Your task to perform on an android device: allow cookies in the chrome app Image 0: 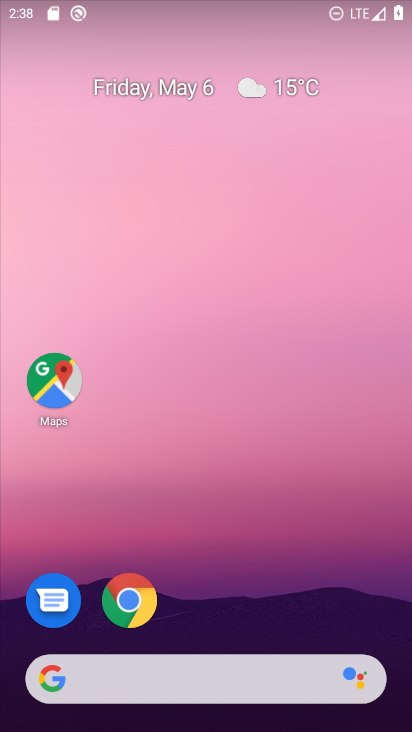
Step 0: drag from (266, 628) to (136, 102)
Your task to perform on an android device: allow cookies in the chrome app Image 1: 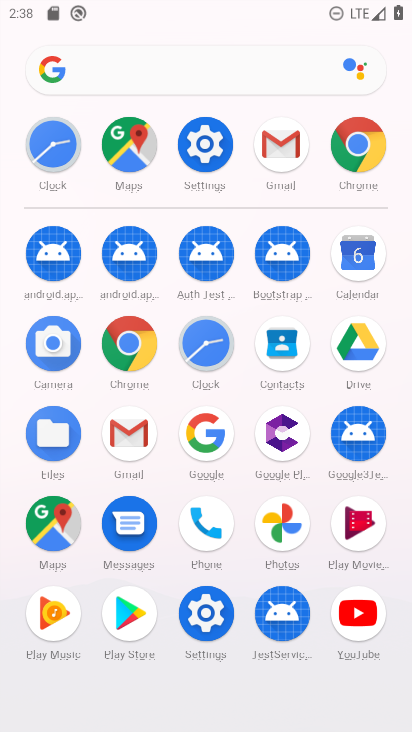
Step 1: click (134, 338)
Your task to perform on an android device: allow cookies in the chrome app Image 2: 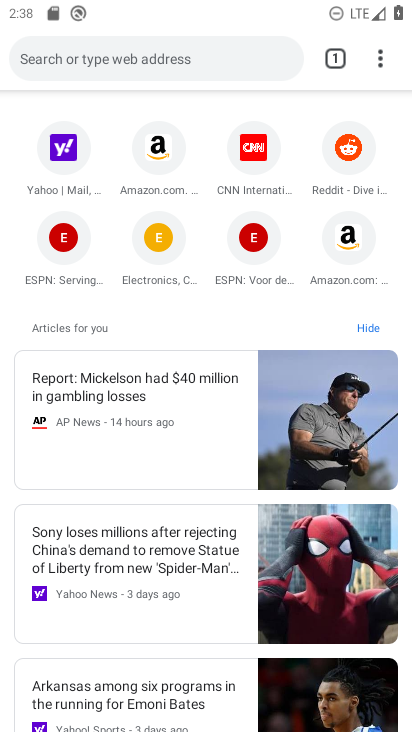
Step 2: click (383, 57)
Your task to perform on an android device: allow cookies in the chrome app Image 3: 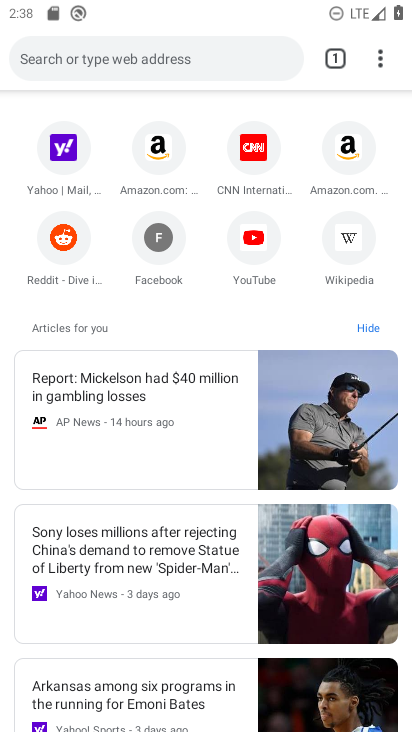
Step 3: click (383, 57)
Your task to perform on an android device: allow cookies in the chrome app Image 4: 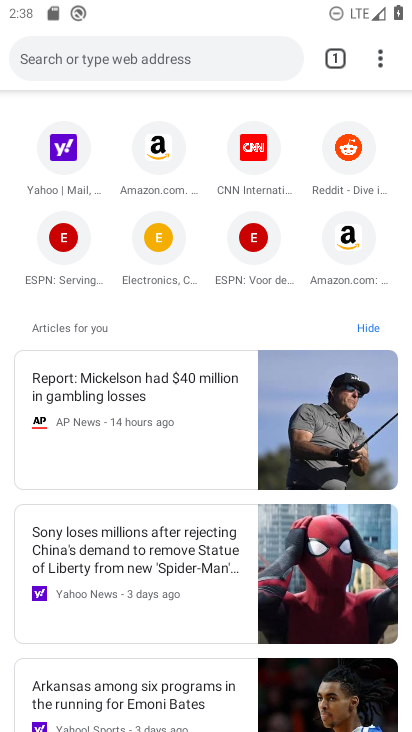
Step 4: click (380, 46)
Your task to perform on an android device: allow cookies in the chrome app Image 5: 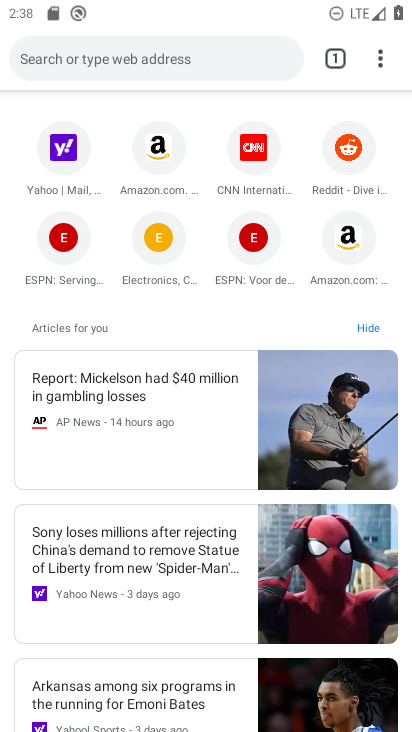
Step 5: click (378, 56)
Your task to perform on an android device: allow cookies in the chrome app Image 6: 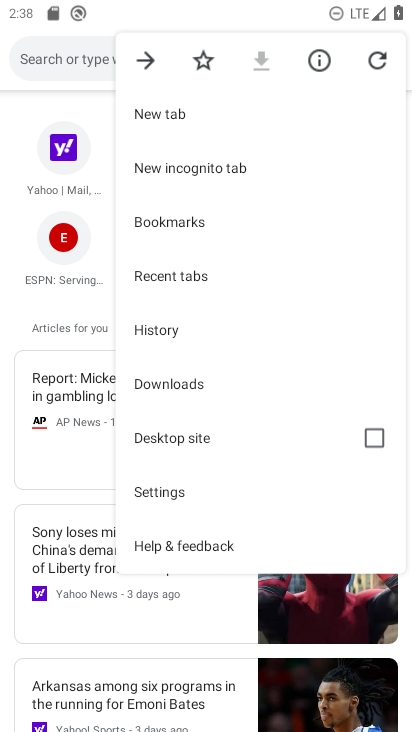
Step 6: click (184, 491)
Your task to perform on an android device: allow cookies in the chrome app Image 7: 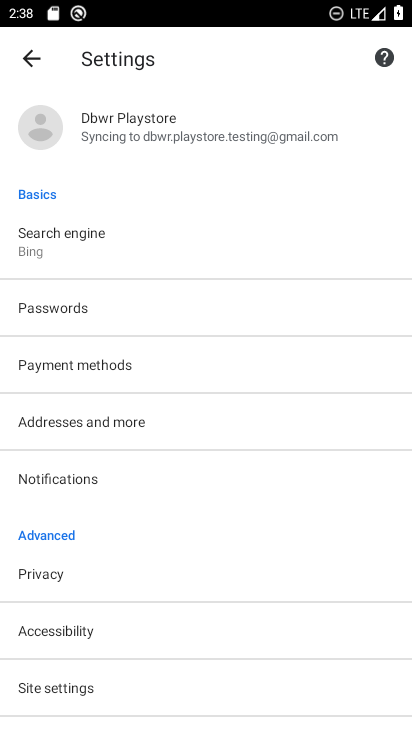
Step 7: click (79, 680)
Your task to perform on an android device: allow cookies in the chrome app Image 8: 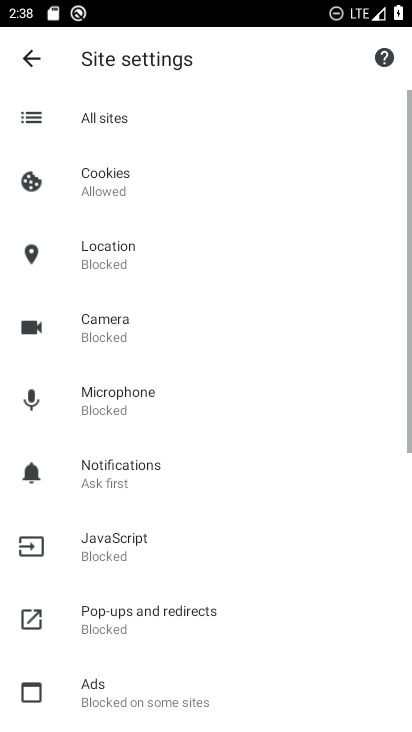
Step 8: click (174, 188)
Your task to perform on an android device: allow cookies in the chrome app Image 9: 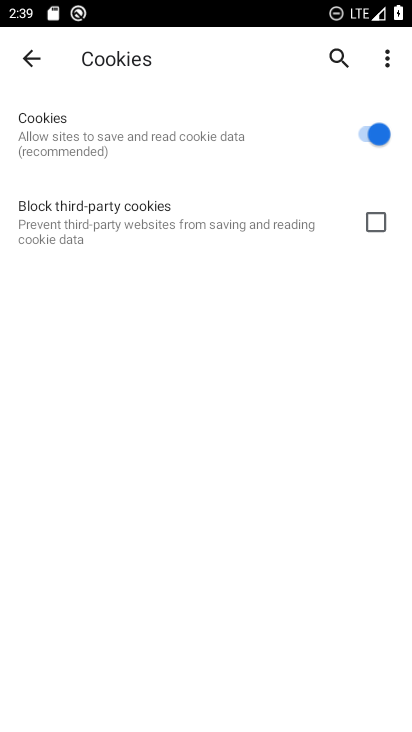
Step 9: task complete